Your task to perform on an android device: turn off location history Image 0: 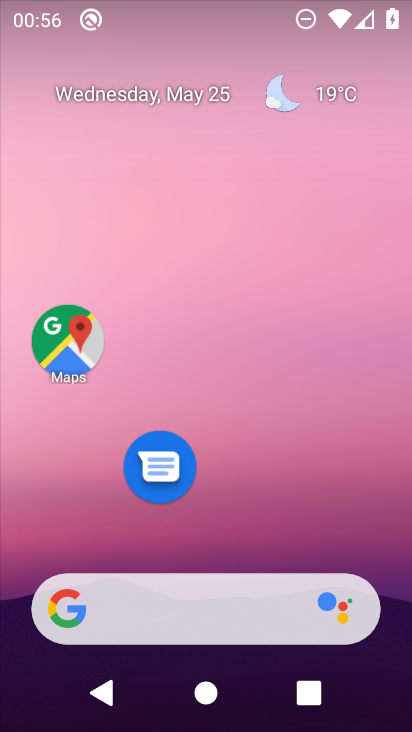
Step 0: drag from (221, 511) to (227, 269)
Your task to perform on an android device: turn off location history Image 1: 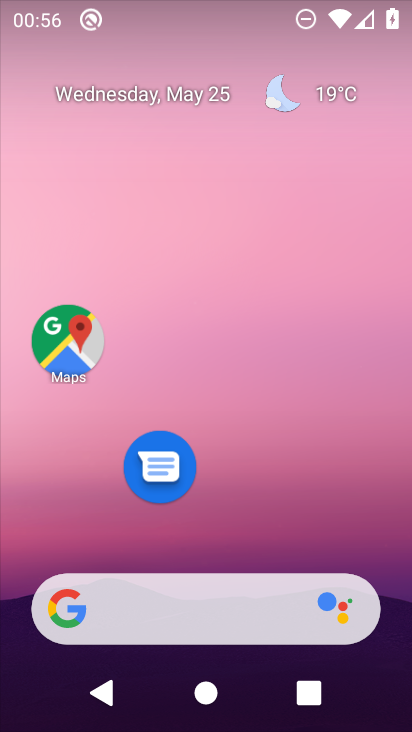
Step 1: drag from (234, 548) to (225, 64)
Your task to perform on an android device: turn off location history Image 2: 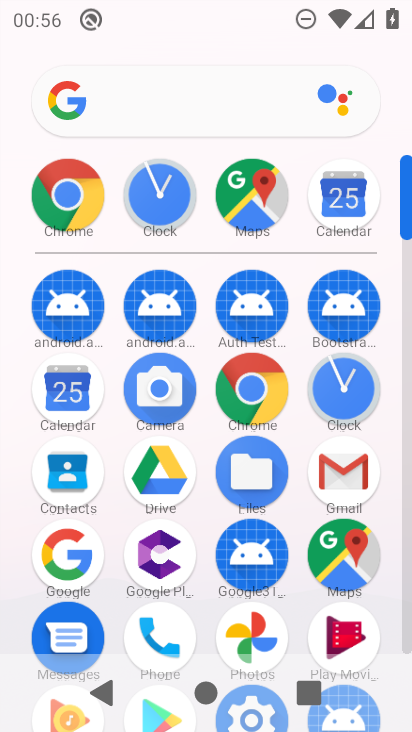
Step 2: drag from (202, 612) to (205, 255)
Your task to perform on an android device: turn off location history Image 3: 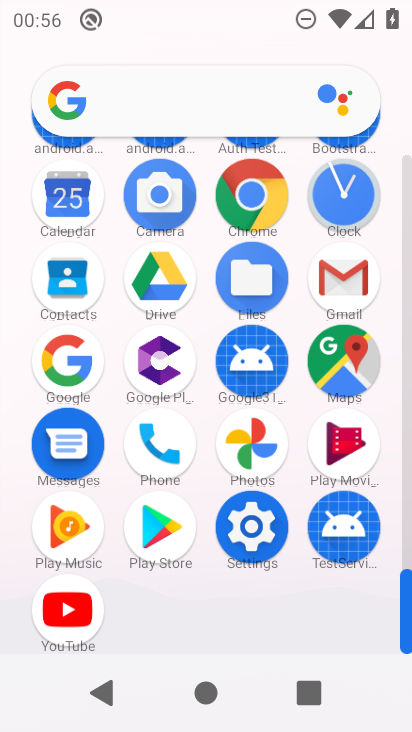
Step 3: click (264, 525)
Your task to perform on an android device: turn off location history Image 4: 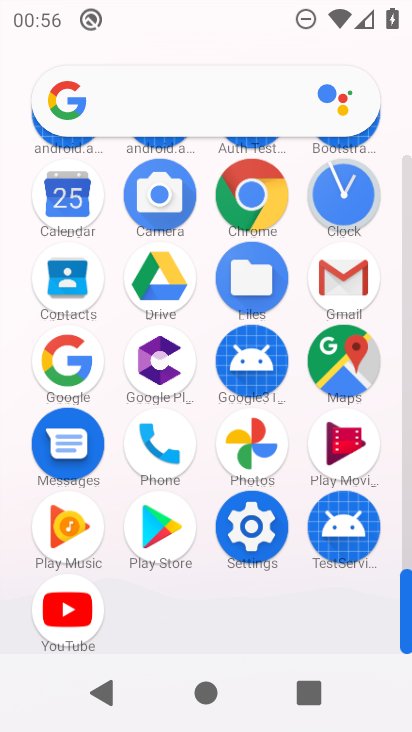
Step 4: click (264, 525)
Your task to perform on an android device: turn off location history Image 5: 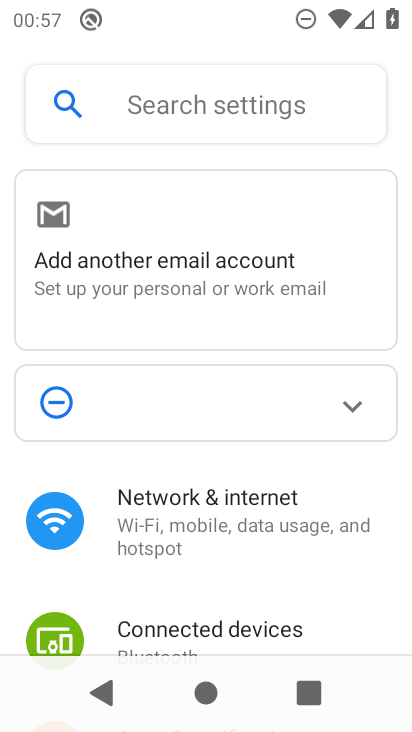
Step 5: drag from (234, 576) to (303, 118)
Your task to perform on an android device: turn off location history Image 6: 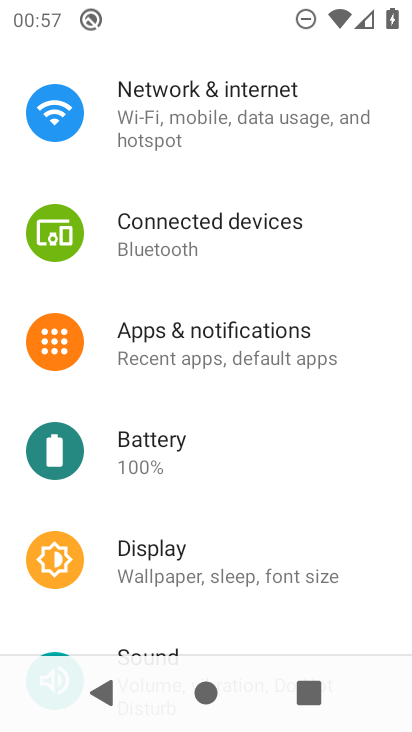
Step 6: drag from (215, 590) to (301, 223)
Your task to perform on an android device: turn off location history Image 7: 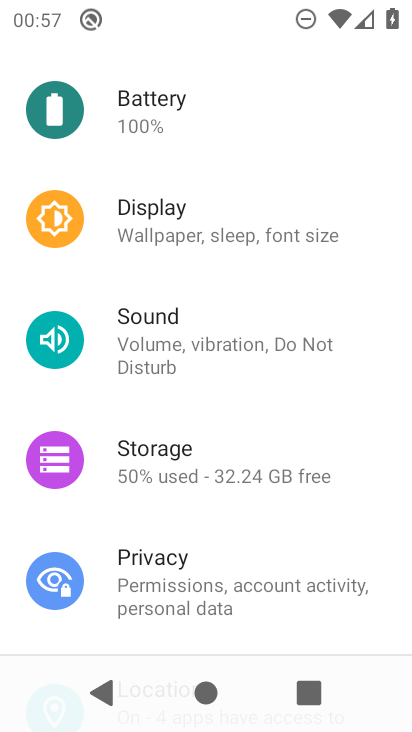
Step 7: drag from (233, 468) to (283, 216)
Your task to perform on an android device: turn off location history Image 8: 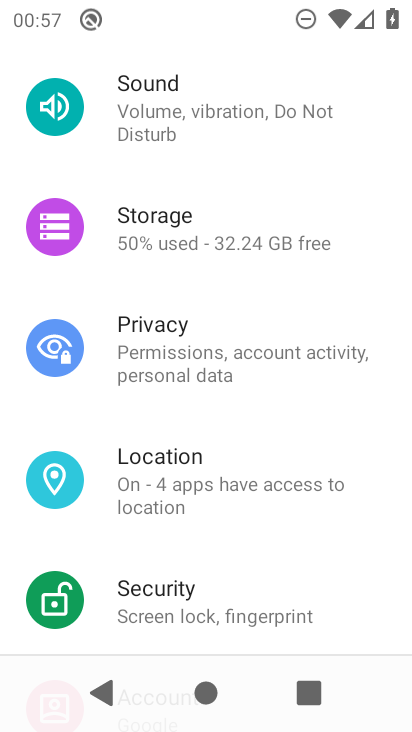
Step 8: click (197, 456)
Your task to perform on an android device: turn off location history Image 9: 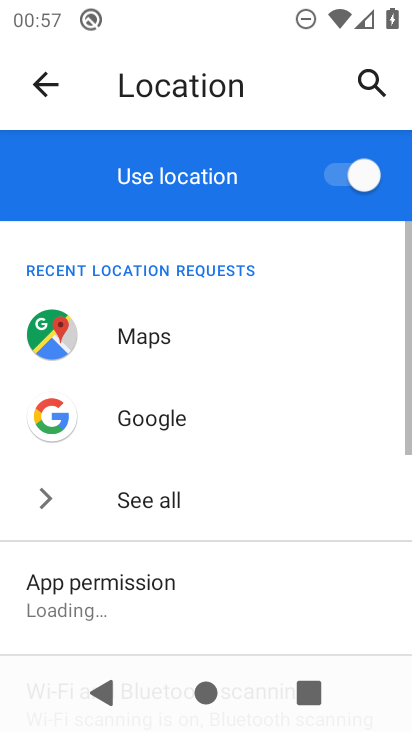
Step 9: drag from (205, 533) to (340, 40)
Your task to perform on an android device: turn off location history Image 10: 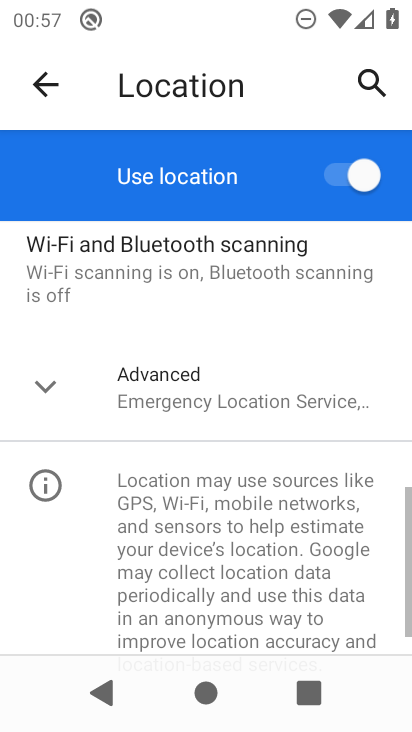
Step 10: click (172, 404)
Your task to perform on an android device: turn off location history Image 11: 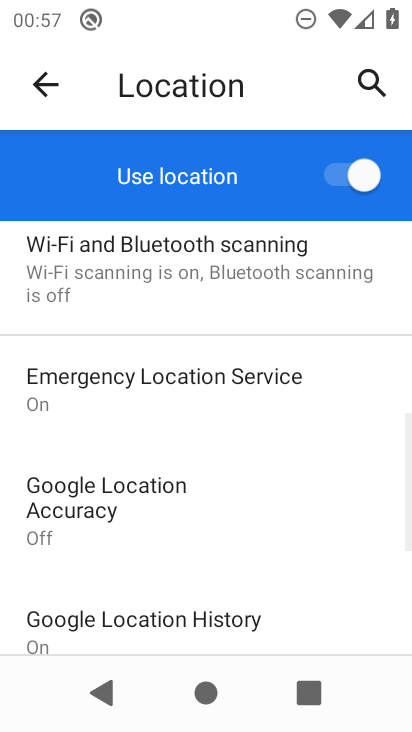
Step 11: click (207, 604)
Your task to perform on an android device: turn off location history Image 12: 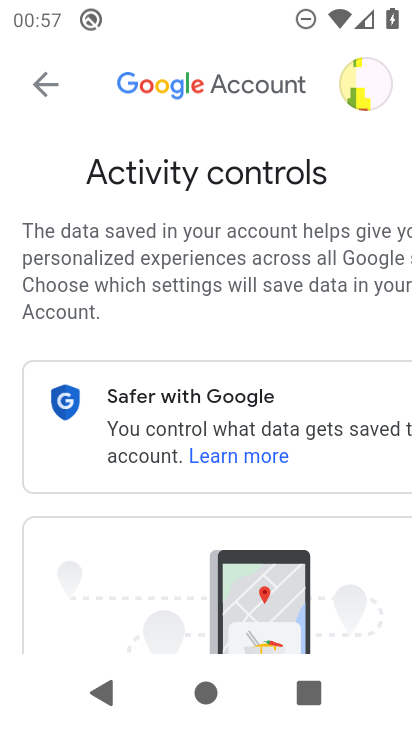
Step 12: drag from (276, 566) to (326, 258)
Your task to perform on an android device: turn off location history Image 13: 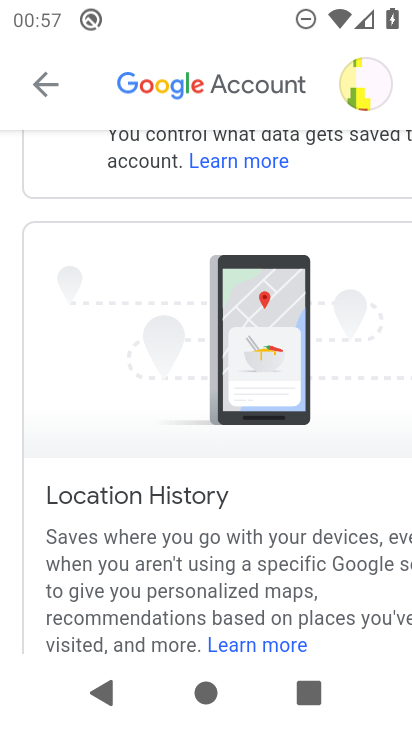
Step 13: drag from (227, 569) to (397, 118)
Your task to perform on an android device: turn off location history Image 14: 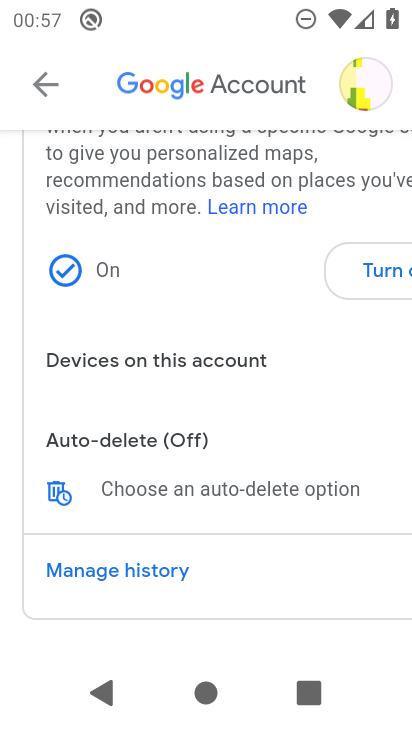
Step 14: drag from (229, 621) to (186, 468)
Your task to perform on an android device: turn off location history Image 15: 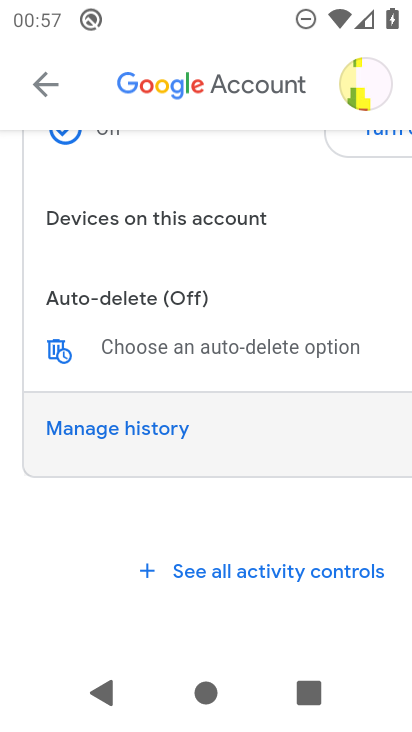
Step 15: drag from (345, 232) to (338, 351)
Your task to perform on an android device: turn off location history Image 16: 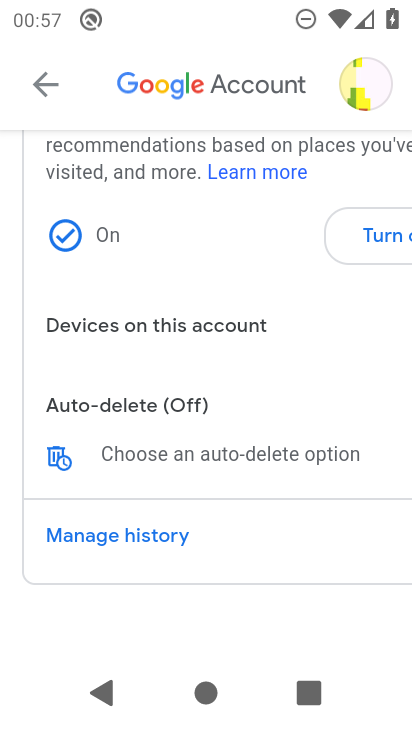
Step 16: click (393, 236)
Your task to perform on an android device: turn off location history Image 17: 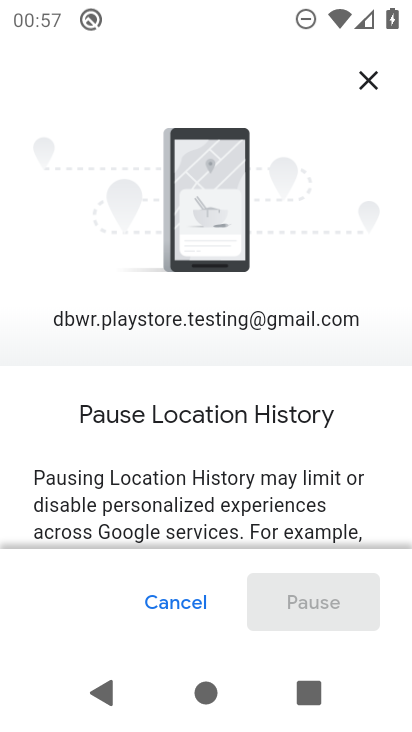
Step 17: drag from (240, 472) to (353, 13)
Your task to perform on an android device: turn off location history Image 18: 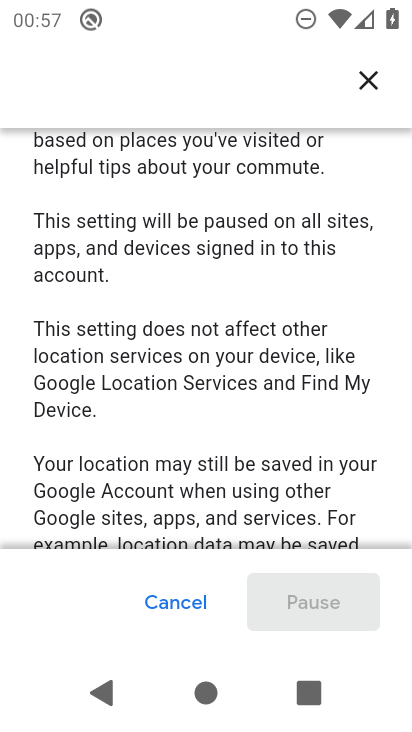
Step 18: drag from (242, 471) to (332, 176)
Your task to perform on an android device: turn off location history Image 19: 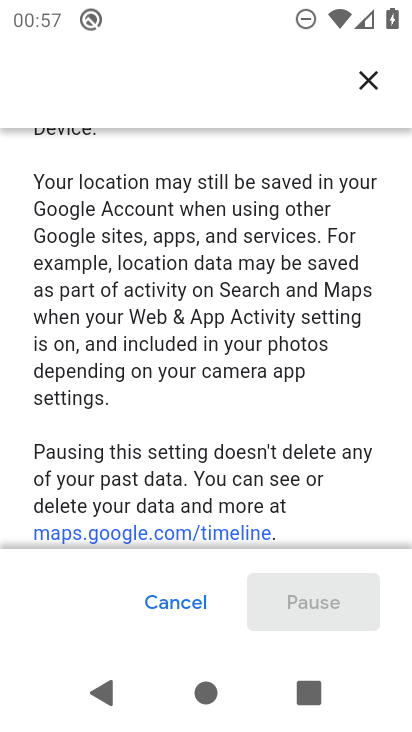
Step 19: drag from (183, 467) to (266, 263)
Your task to perform on an android device: turn off location history Image 20: 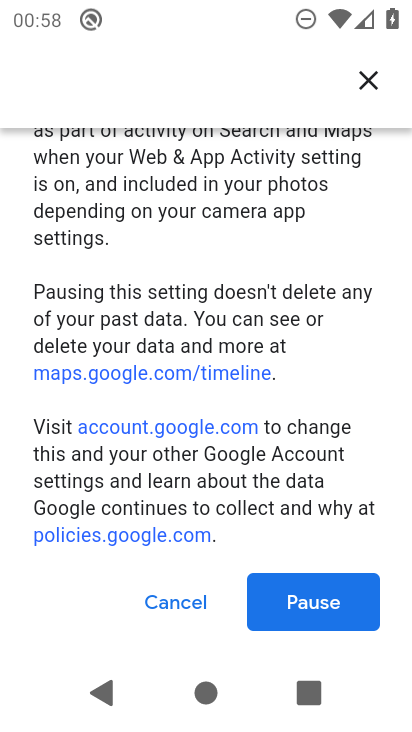
Step 20: click (294, 584)
Your task to perform on an android device: turn off location history Image 21: 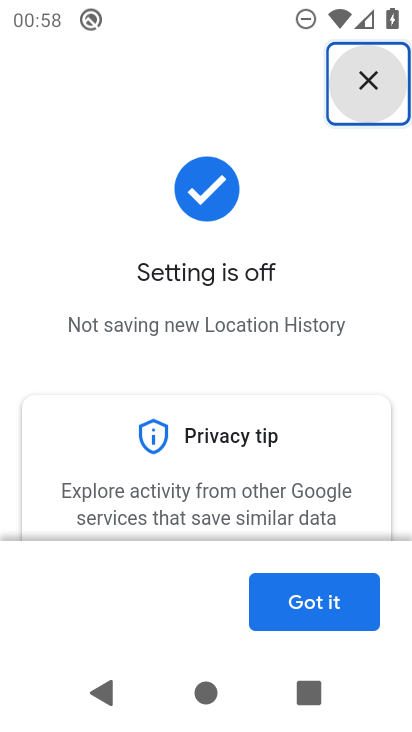
Step 21: click (322, 595)
Your task to perform on an android device: turn off location history Image 22: 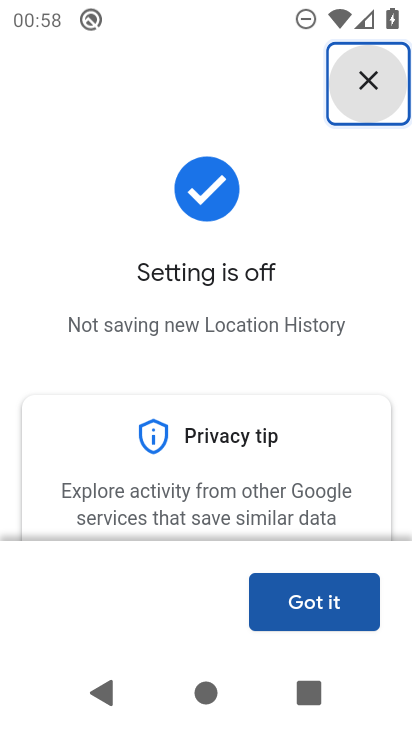
Step 22: task complete